Your task to perform on an android device: Go to Reddit.com Image 0: 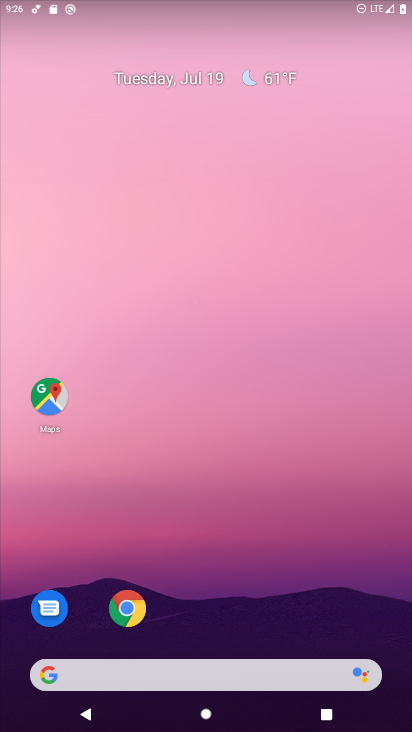
Step 0: click (123, 607)
Your task to perform on an android device: Go to Reddit.com Image 1: 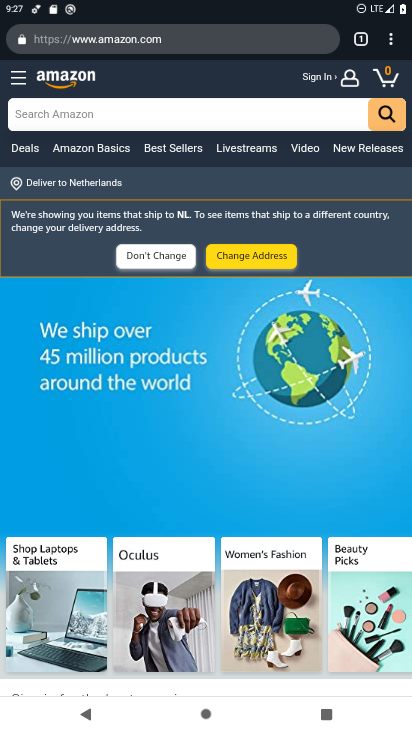
Step 1: click (391, 38)
Your task to perform on an android device: Go to Reddit.com Image 2: 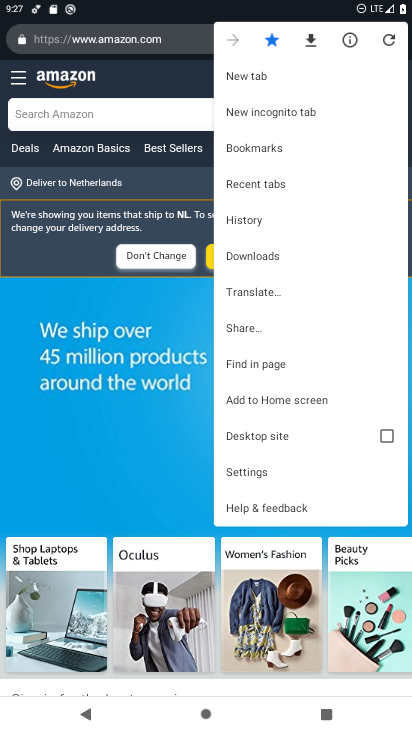
Step 2: click (248, 74)
Your task to perform on an android device: Go to Reddit.com Image 3: 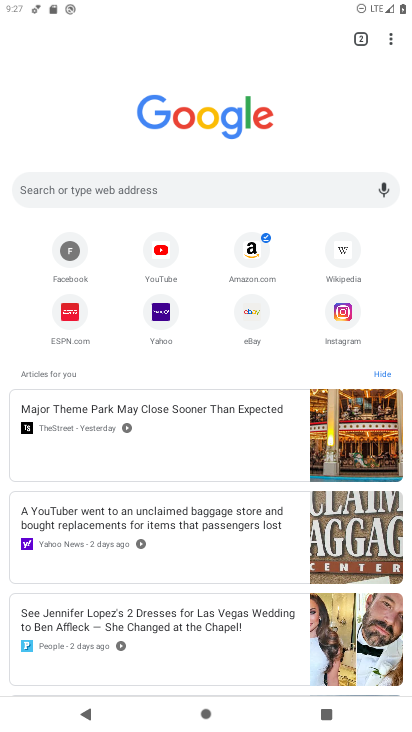
Step 3: type "reddit.com"
Your task to perform on an android device: Go to Reddit.com Image 4: 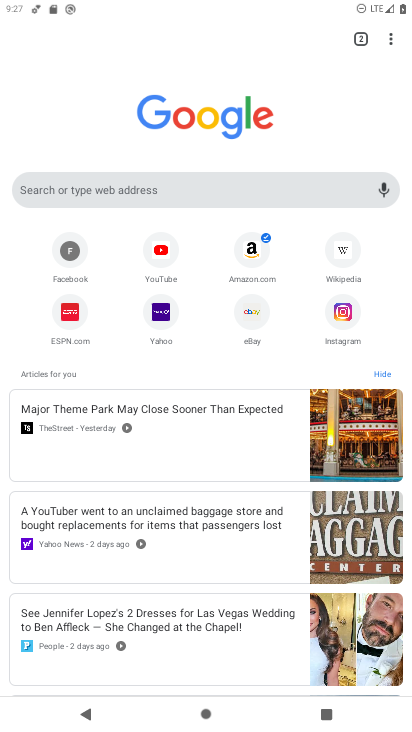
Step 4: click (173, 181)
Your task to perform on an android device: Go to Reddit.com Image 5: 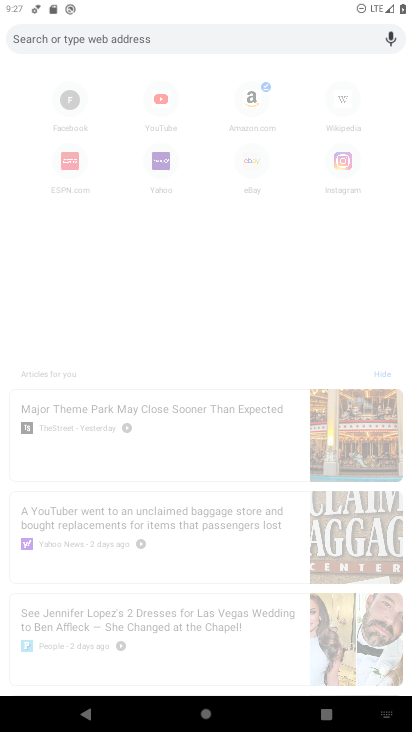
Step 5: type "reddit.com"
Your task to perform on an android device: Go to Reddit.com Image 6: 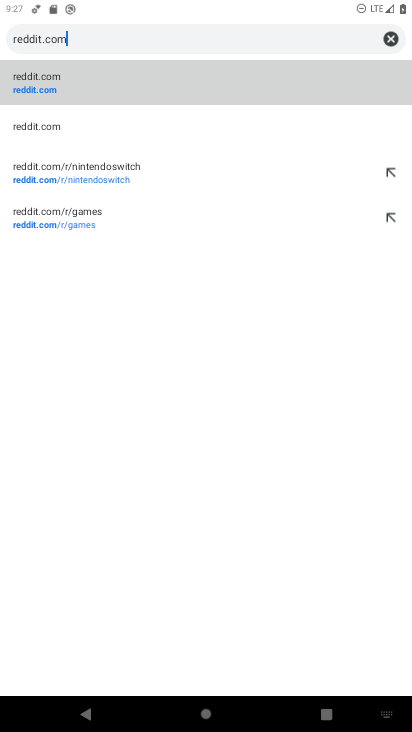
Step 6: click (32, 86)
Your task to perform on an android device: Go to Reddit.com Image 7: 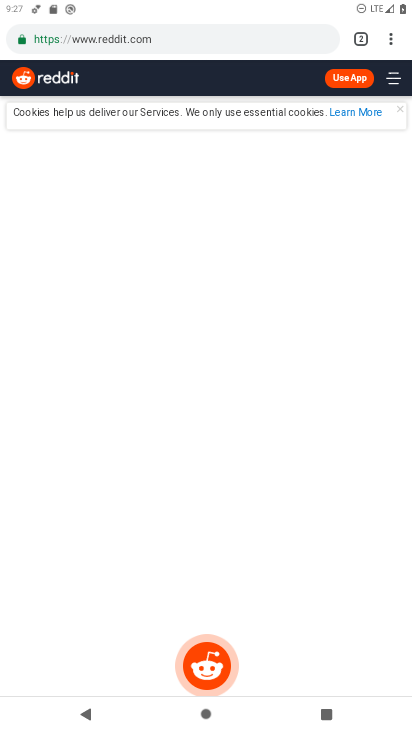
Step 7: task complete